Your task to perform on an android device: When is my next appointment? Image 0: 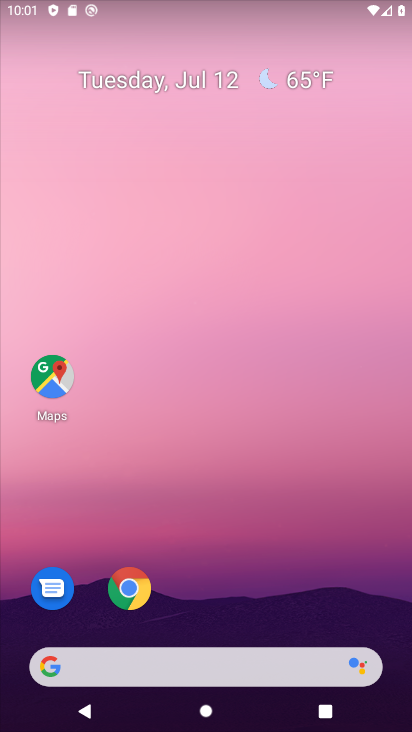
Step 0: drag from (31, 708) to (308, 17)
Your task to perform on an android device: When is my next appointment? Image 1: 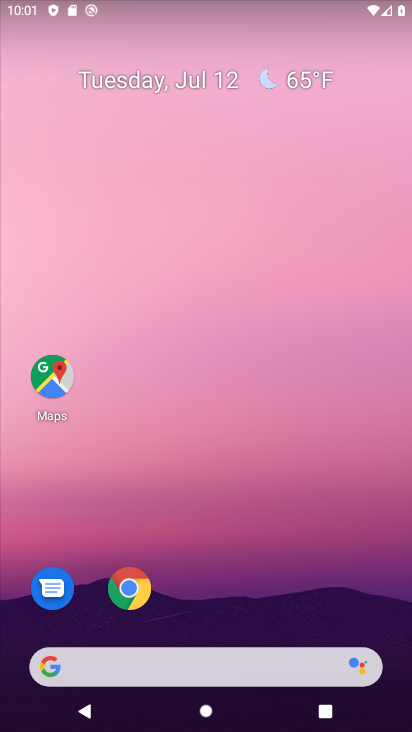
Step 1: drag from (92, 550) to (242, 4)
Your task to perform on an android device: When is my next appointment? Image 2: 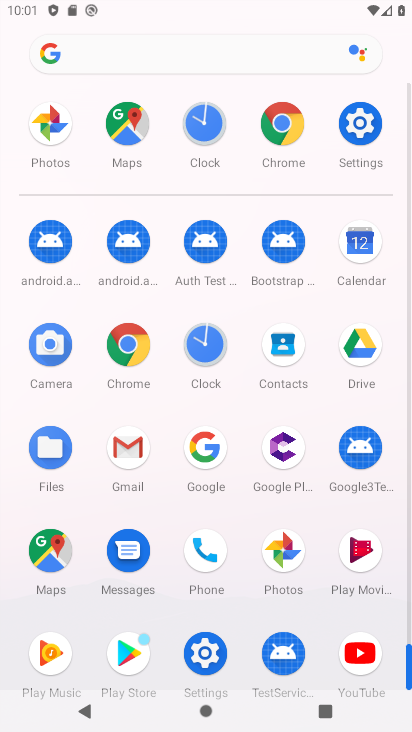
Step 2: click (353, 246)
Your task to perform on an android device: When is my next appointment? Image 3: 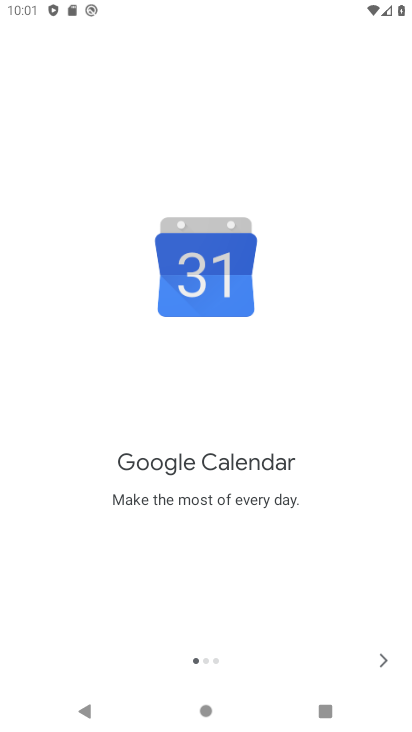
Step 3: click (373, 664)
Your task to perform on an android device: When is my next appointment? Image 4: 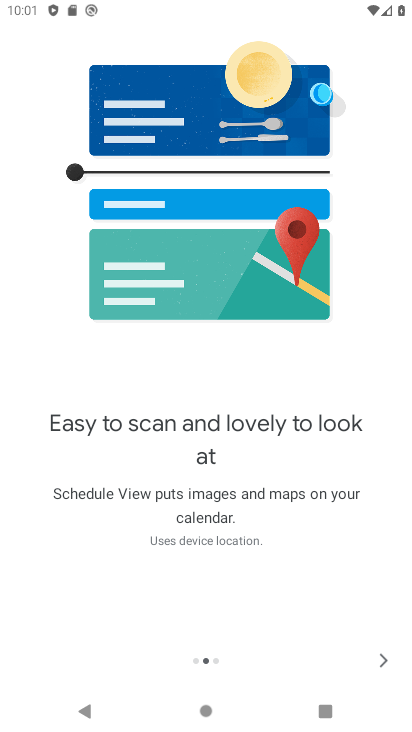
Step 4: click (383, 656)
Your task to perform on an android device: When is my next appointment? Image 5: 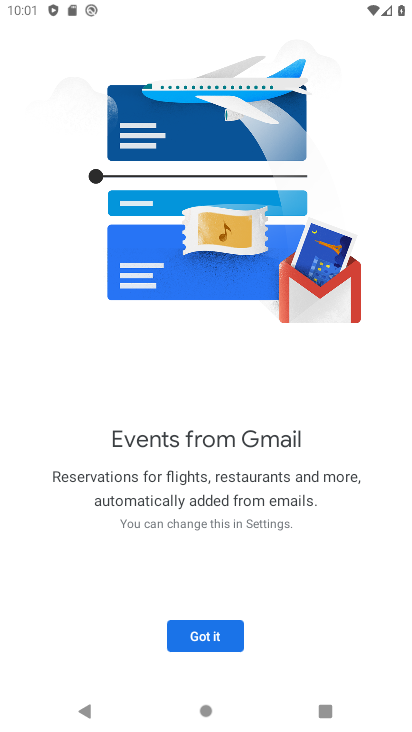
Step 5: click (189, 635)
Your task to perform on an android device: When is my next appointment? Image 6: 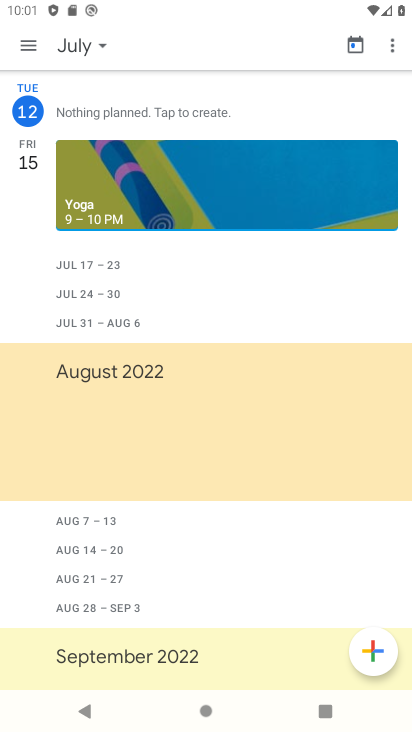
Step 6: click (29, 48)
Your task to perform on an android device: When is my next appointment? Image 7: 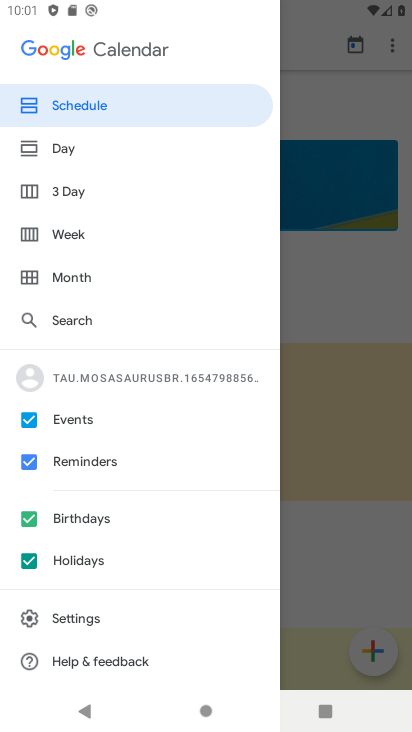
Step 7: click (308, 55)
Your task to perform on an android device: When is my next appointment? Image 8: 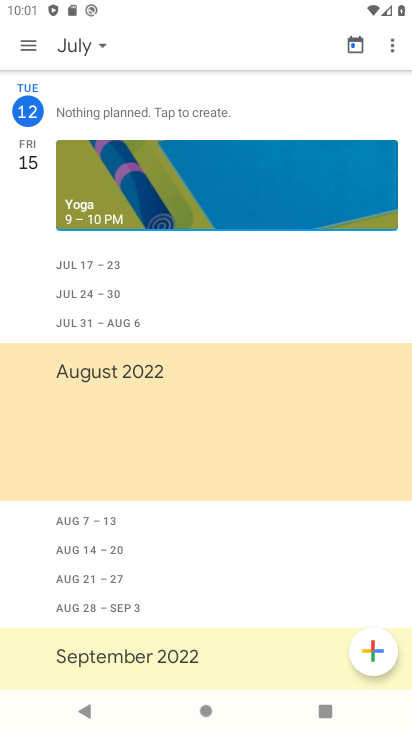
Step 8: click (84, 46)
Your task to perform on an android device: When is my next appointment? Image 9: 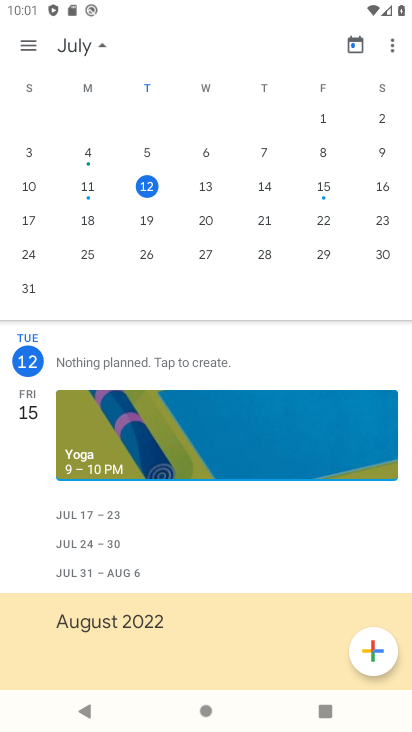
Step 9: task complete